Your task to perform on an android device: Search for Italian restaurants on Maps Image 0: 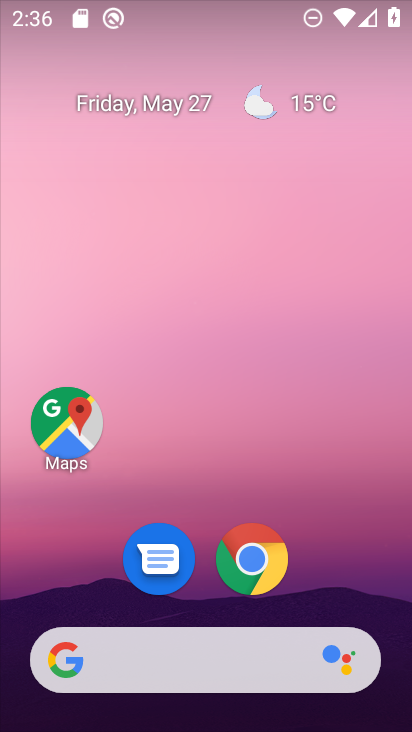
Step 0: drag from (219, 243) to (322, 5)
Your task to perform on an android device: Search for Italian restaurants on Maps Image 1: 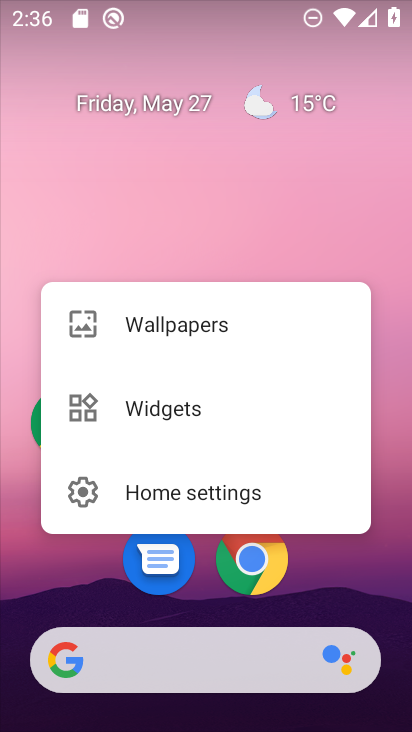
Step 1: click (247, 215)
Your task to perform on an android device: Search for Italian restaurants on Maps Image 2: 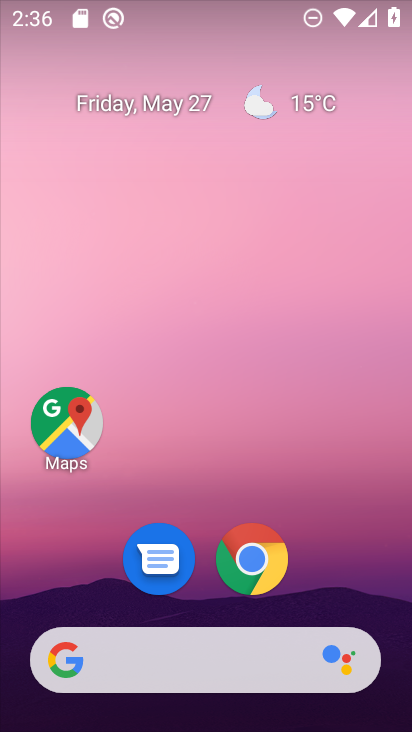
Step 2: drag from (269, 652) to (331, 9)
Your task to perform on an android device: Search for Italian restaurants on Maps Image 3: 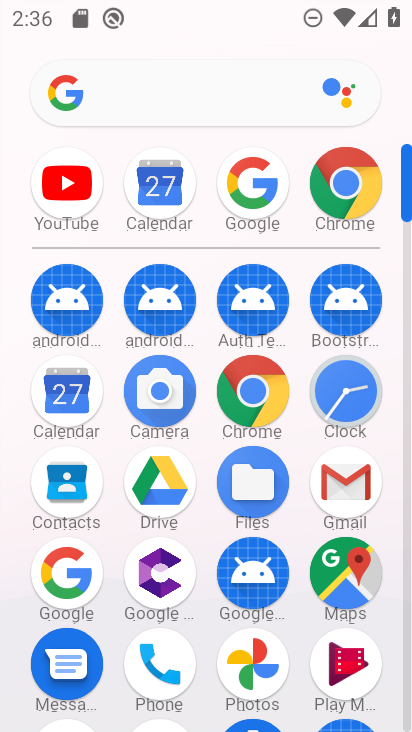
Step 3: click (347, 587)
Your task to perform on an android device: Search for Italian restaurants on Maps Image 4: 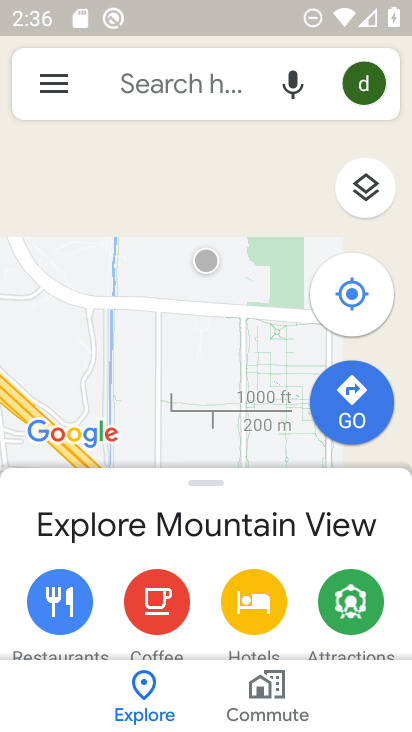
Step 4: click (197, 89)
Your task to perform on an android device: Search for Italian restaurants on Maps Image 5: 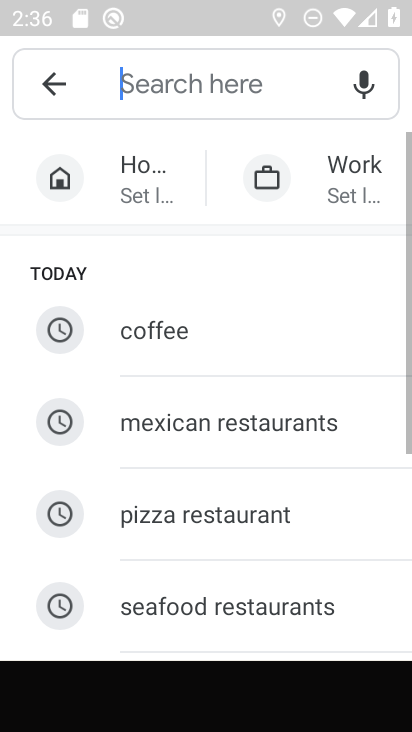
Step 5: click (197, 89)
Your task to perform on an android device: Search for Italian restaurants on Maps Image 6: 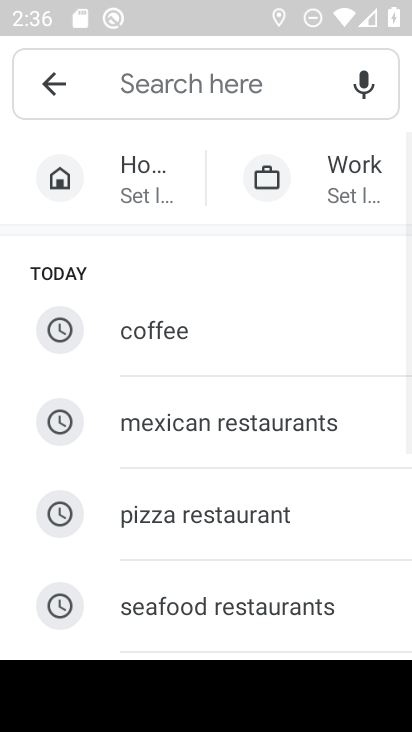
Step 6: drag from (215, 621) to (240, 322)
Your task to perform on an android device: Search for Italian restaurants on Maps Image 7: 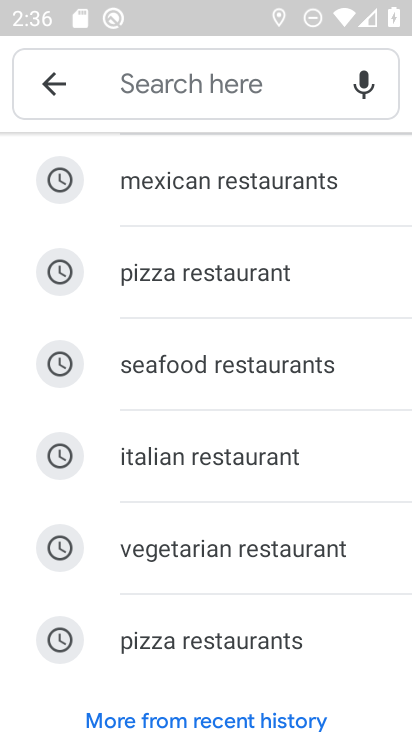
Step 7: click (270, 480)
Your task to perform on an android device: Search for Italian restaurants on Maps Image 8: 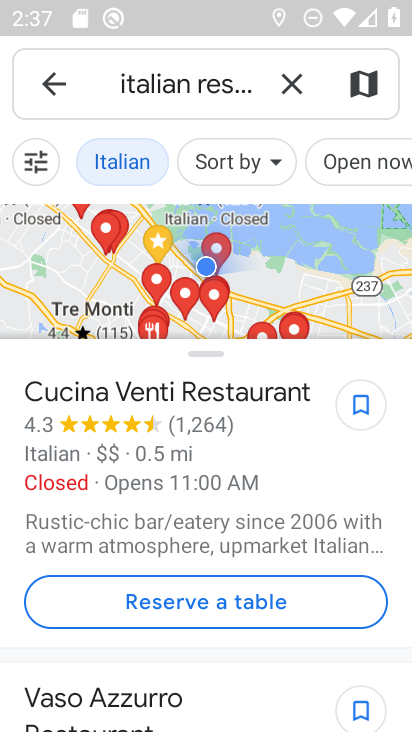
Step 8: task complete